Your task to perform on an android device: Search for Italian restaurants on Maps Image 0: 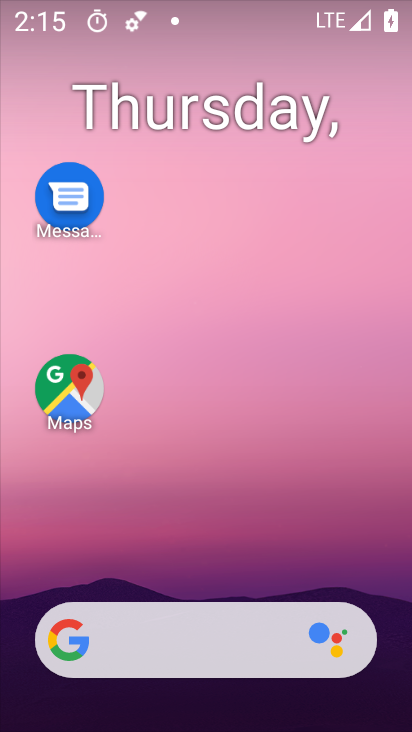
Step 0: drag from (139, 584) to (212, 129)
Your task to perform on an android device: Search for Italian restaurants on Maps Image 1: 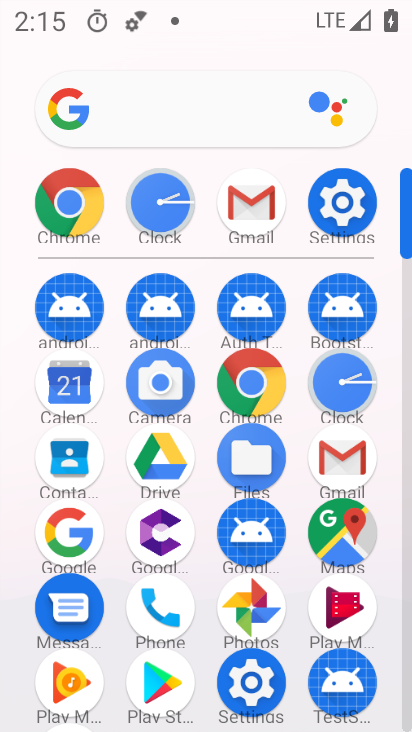
Step 1: click (345, 533)
Your task to perform on an android device: Search for Italian restaurants on Maps Image 2: 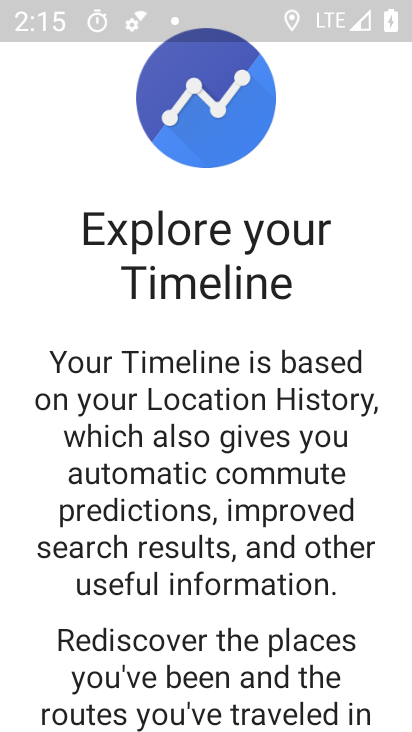
Step 2: task complete